Your task to perform on an android device: check data usage Image 0: 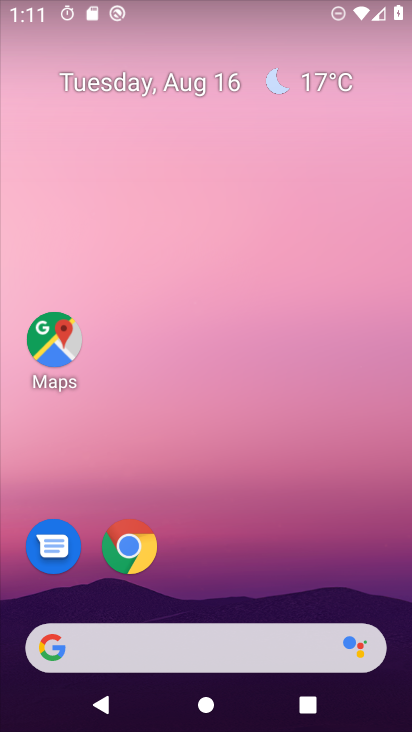
Step 0: drag from (224, 577) to (221, 39)
Your task to perform on an android device: check data usage Image 1: 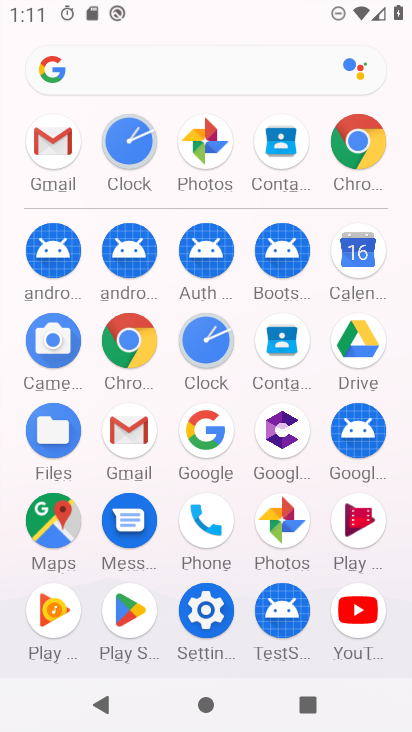
Step 1: click (208, 611)
Your task to perform on an android device: check data usage Image 2: 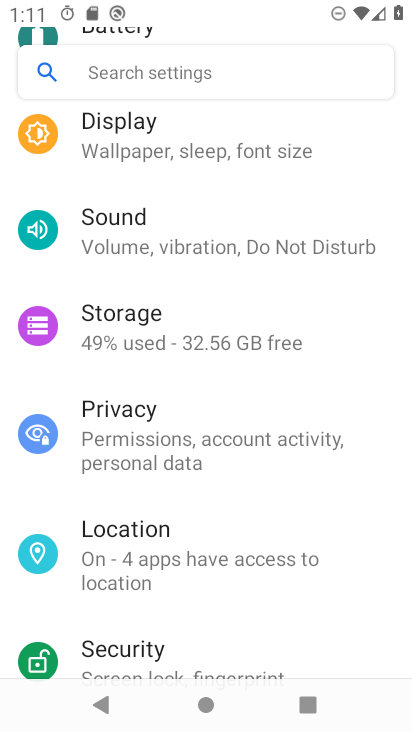
Step 2: drag from (142, 211) to (145, 647)
Your task to perform on an android device: check data usage Image 3: 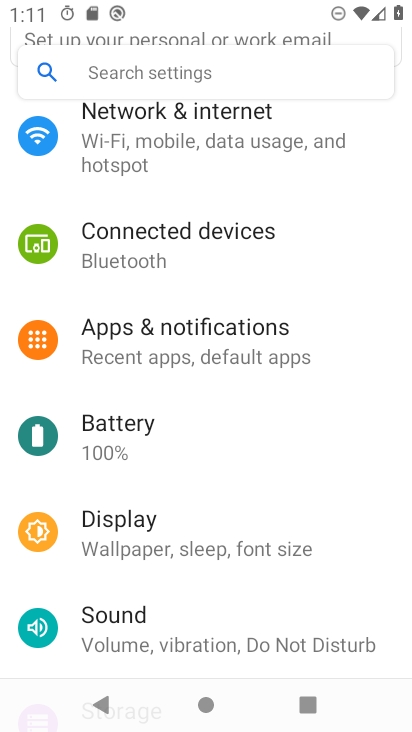
Step 3: drag from (148, 173) to (158, 275)
Your task to perform on an android device: check data usage Image 4: 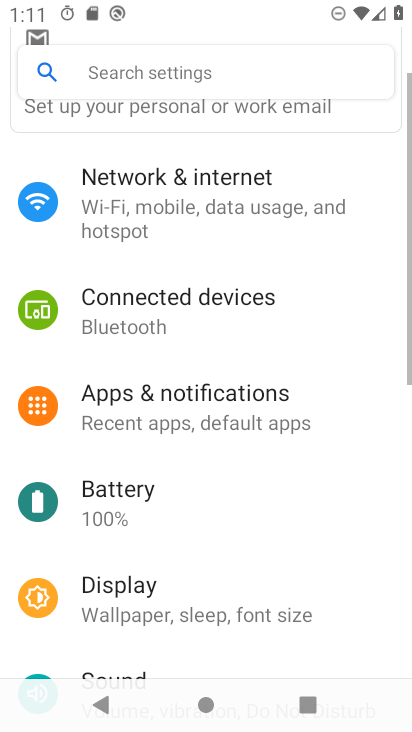
Step 4: drag from (160, 555) to (162, 594)
Your task to perform on an android device: check data usage Image 5: 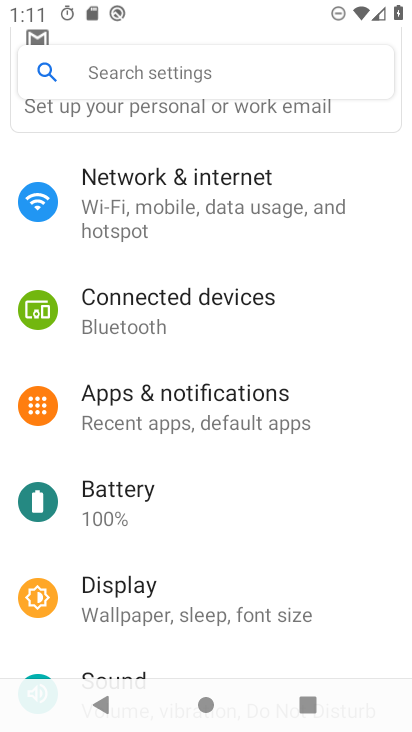
Step 5: click (154, 201)
Your task to perform on an android device: check data usage Image 6: 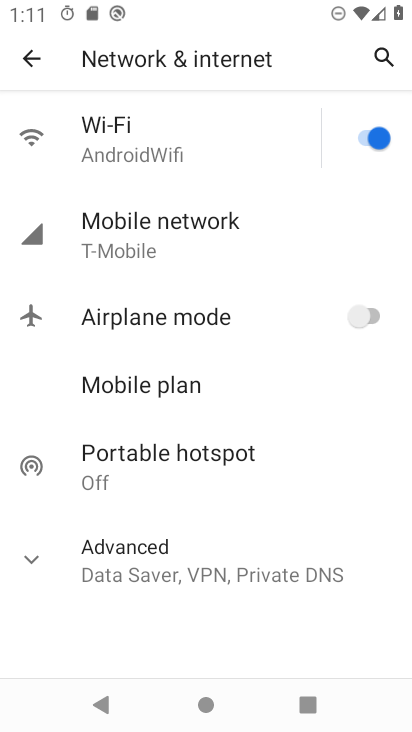
Step 6: click (125, 237)
Your task to perform on an android device: check data usage Image 7: 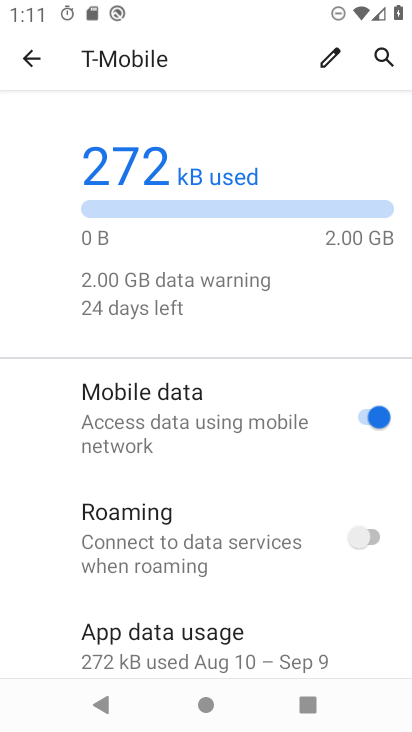
Step 7: drag from (169, 563) to (170, 321)
Your task to perform on an android device: check data usage Image 8: 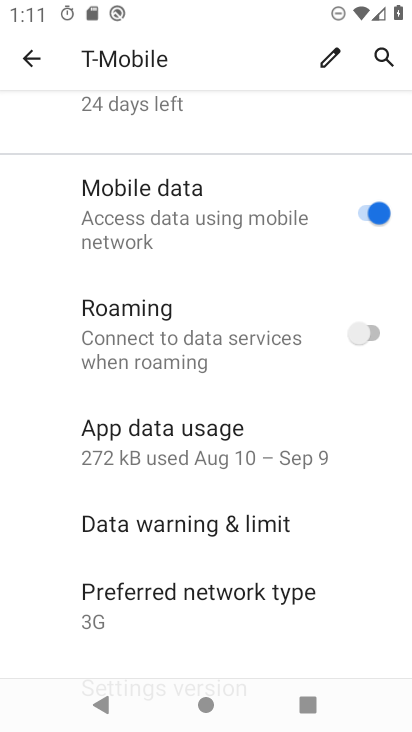
Step 8: click (162, 447)
Your task to perform on an android device: check data usage Image 9: 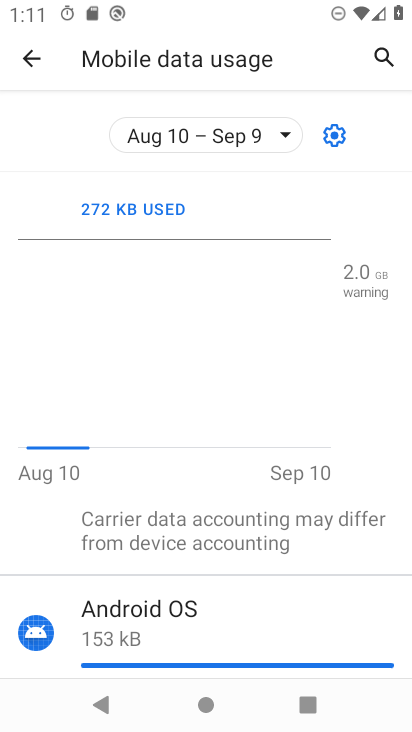
Step 9: task complete